Your task to perform on an android device: Clear the cart on costco. Add "rayovac triple a" to the cart on costco, then select checkout. Image 0: 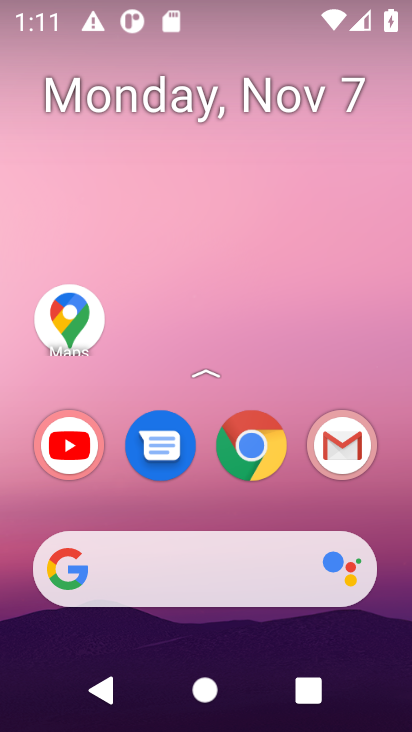
Step 0: click (254, 435)
Your task to perform on an android device: Clear the cart on costco. Add "rayovac triple a" to the cart on costco, then select checkout. Image 1: 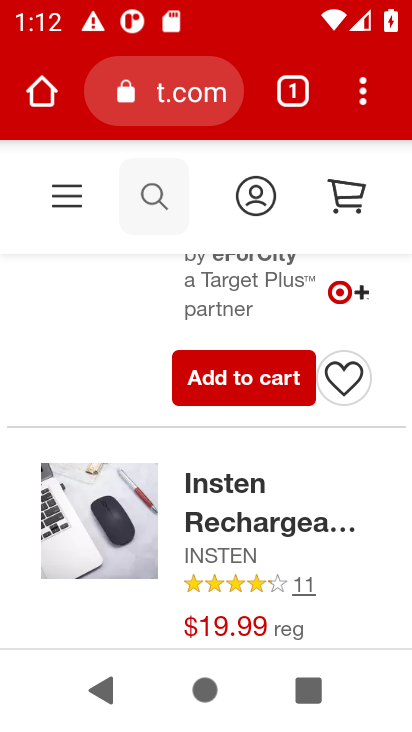
Step 1: click (187, 70)
Your task to perform on an android device: Clear the cart on costco. Add "rayovac triple a" to the cart on costco, then select checkout. Image 2: 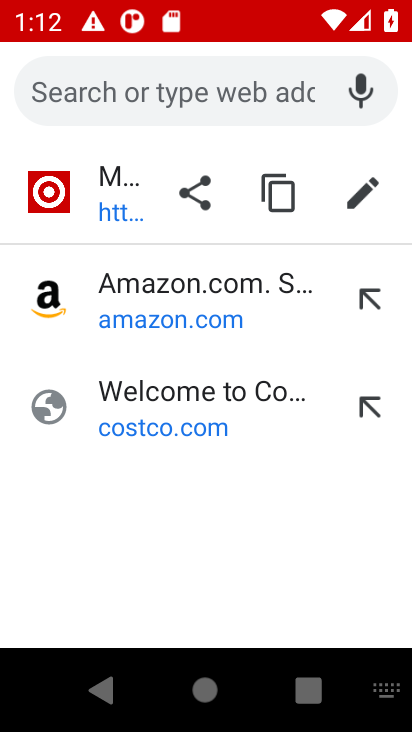
Step 2: type "costco"
Your task to perform on an android device: Clear the cart on costco. Add "rayovac triple a" to the cart on costco, then select checkout. Image 3: 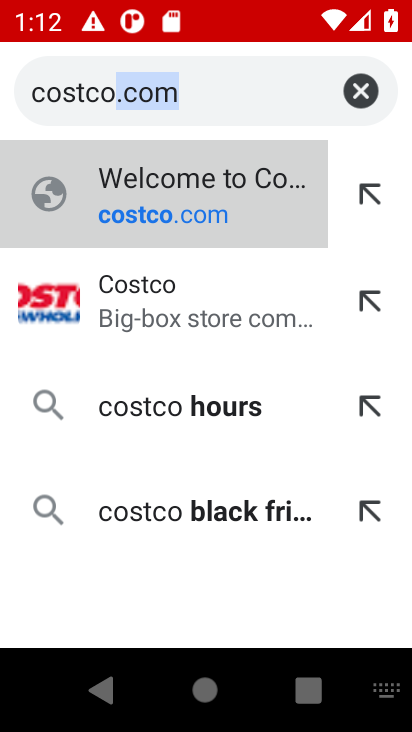
Step 3: click (222, 204)
Your task to perform on an android device: Clear the cart on costco. Add "rayovac triple a" to the cart on costco, then select checkout. Image 4: 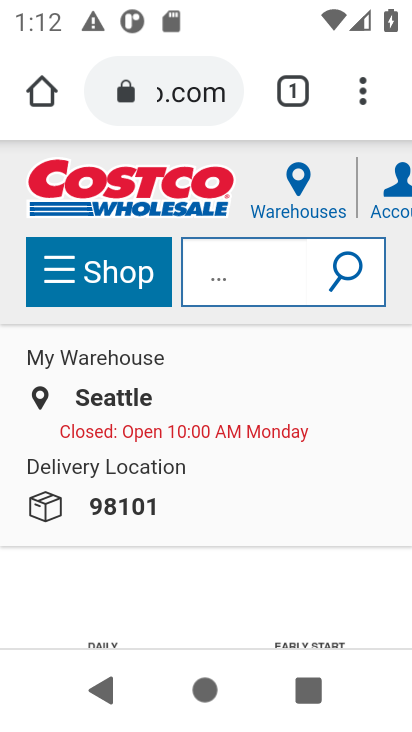
Step 4: drag from (368, 192) to (86, 178)
Your task to perform on an android device: Clear the cart on costco. Add "rayovac triple a" to the cart on costco, then select checkout. Image 5: 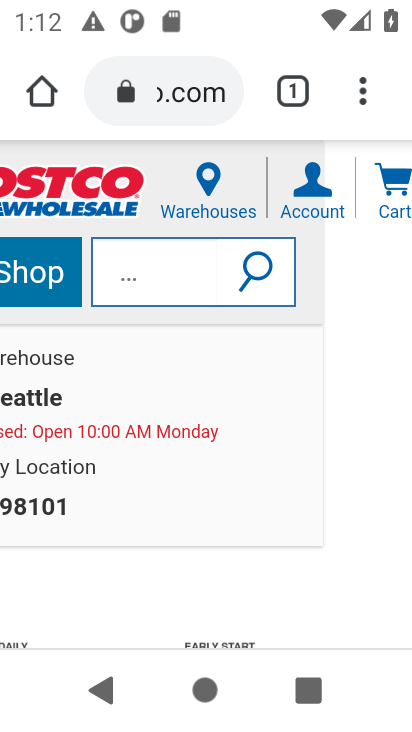
Step 5: click (386, 195)
Your task to perform on an android device: Clear the cart on costco. Add "rayovac triple a" to the cart on costco, then select checkout. Image 6: 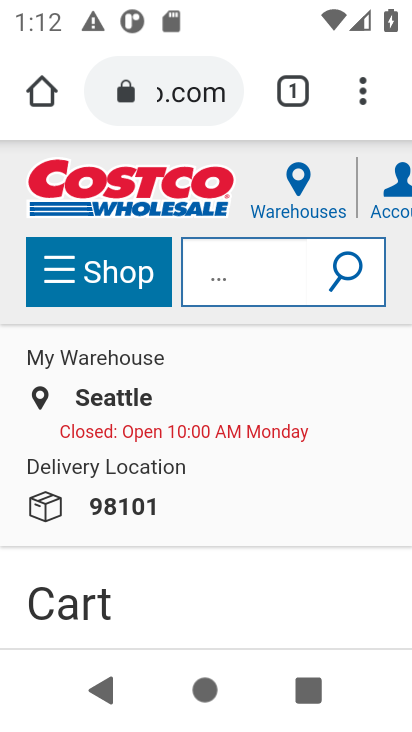
Step 6: drag from (249, 537) to (283, 157)
Your task to perform on an android device: Clear the cart on costco. Add "rayovac triple a" to the cart on costco, then select checkout. Image 7: 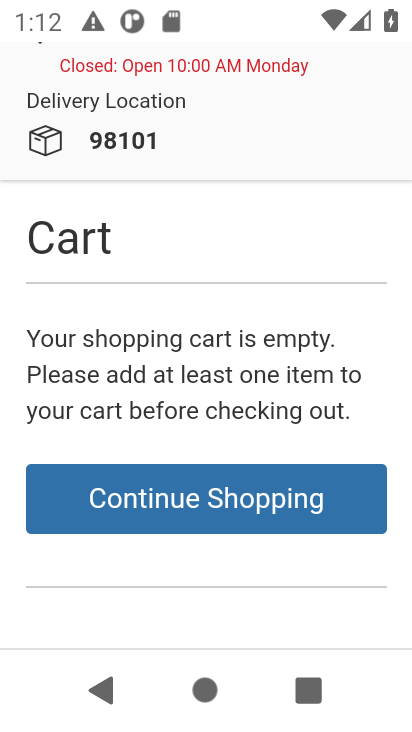
Step 7: drag from (241, 179) to (293, 603)
Your task to perform on an android device: Clear the cart on costco. Add "rayovac triple a" to the cart on costco, then select checkout. Image 8: 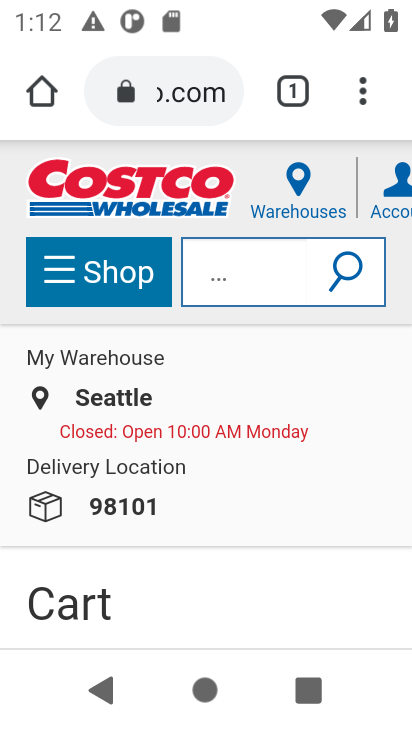
Step 8: click (346, 257)
Your task to perform on an android device: Clear the cart on costco. Add "rayovac triple a" to the cart on costco, then select checkout. Image 9: 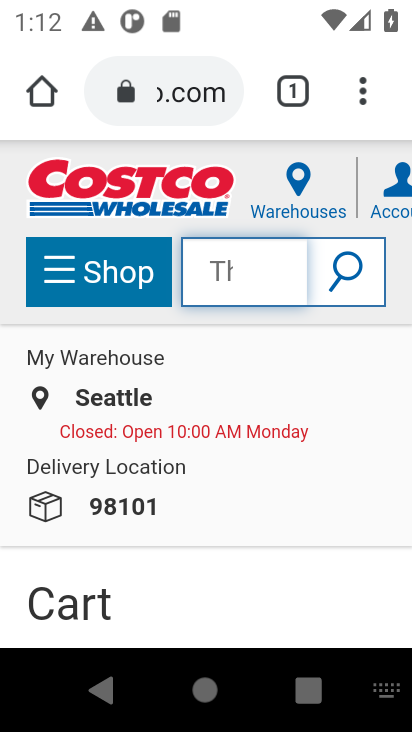
Step 9: type "rayovac triple a"
Your task to perform on an android device: Clear the cart on costco. Add "rayovac triple a" to the cart on costco, then select checkout. Image 10: 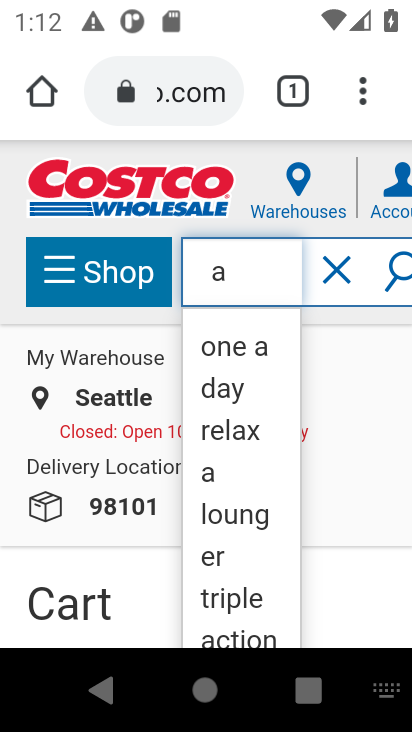
Step 10: click (208, 477)
Your task to perform on an android device: Clear the cart on costco. Add "rayovac triple a" to the cart on costco, then select checkout. Image 11: 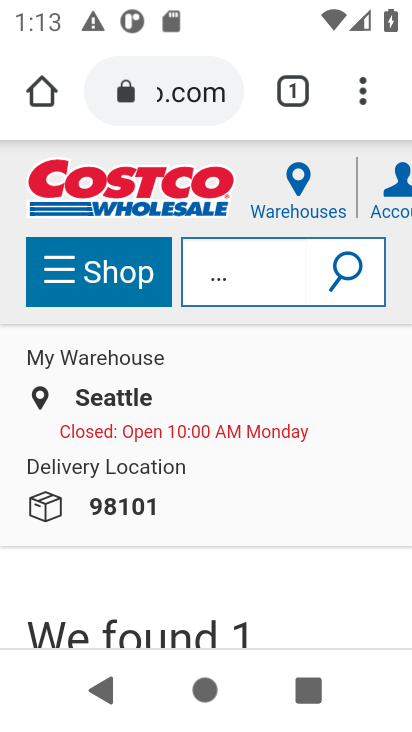
Step 11: task complete